Your task to perform on an android device: What is the news today? Image 0: 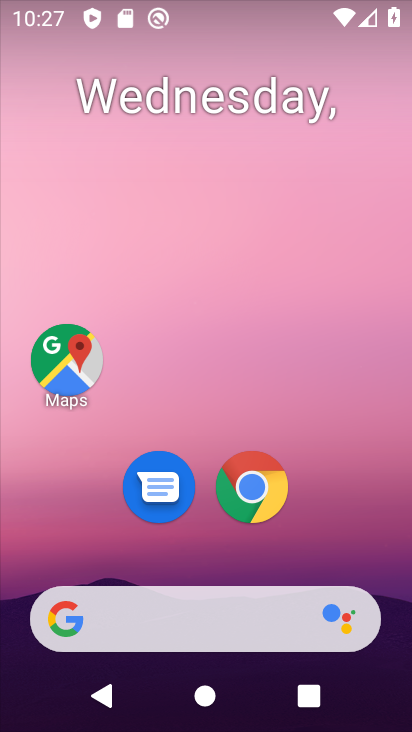
Step 0: drag from (103, 613) to (169, 1)
Your task to perform on an android device: What is the news today? Image 1: 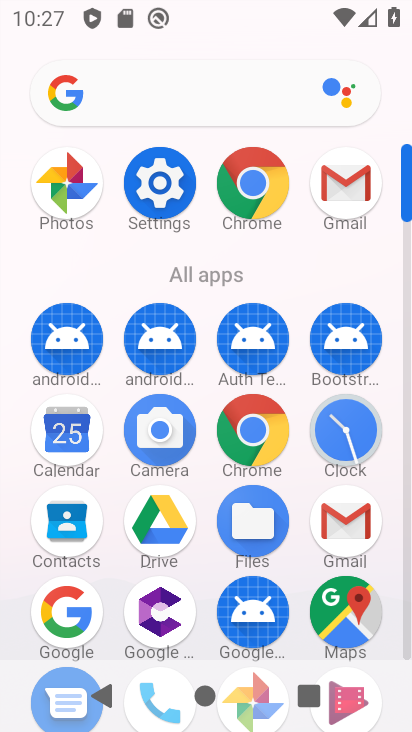
Step 1: click (250, 430)
Your task to perform on an android device: What is the news today? Image 2: 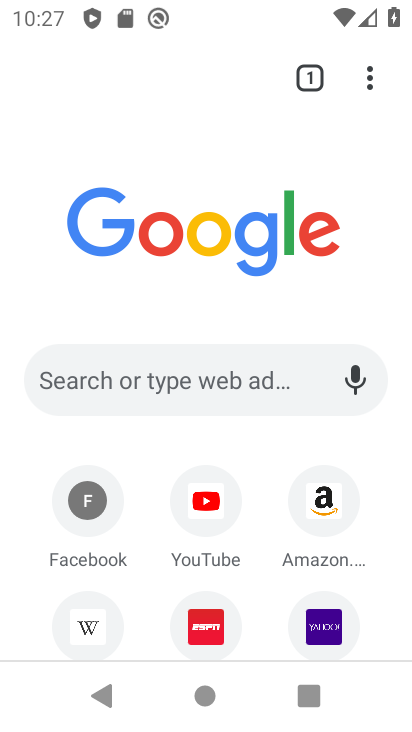
Step 2: click (233, 374)
Your task to perform on an android device: What is the news today? Image 3: 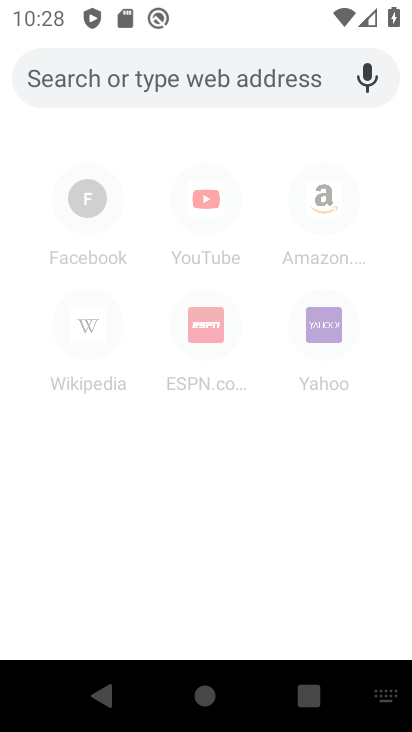
Step 3: type "news today"
Your task to perform on an android device: What is the news today? Image 4: 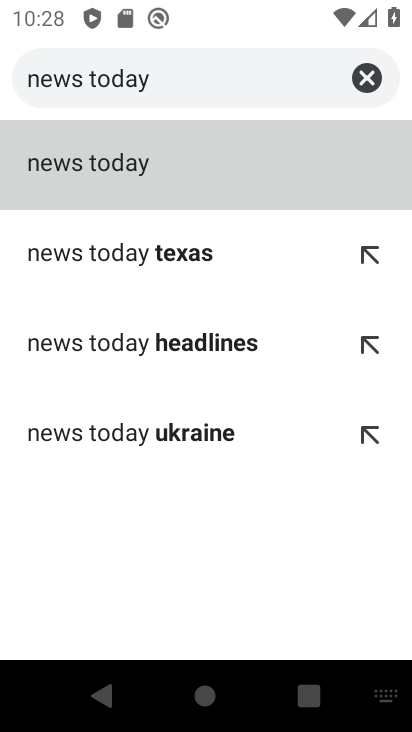
Step 4: click (199, 165)
Your task to perform on an android device: What is the news today? Image 5: 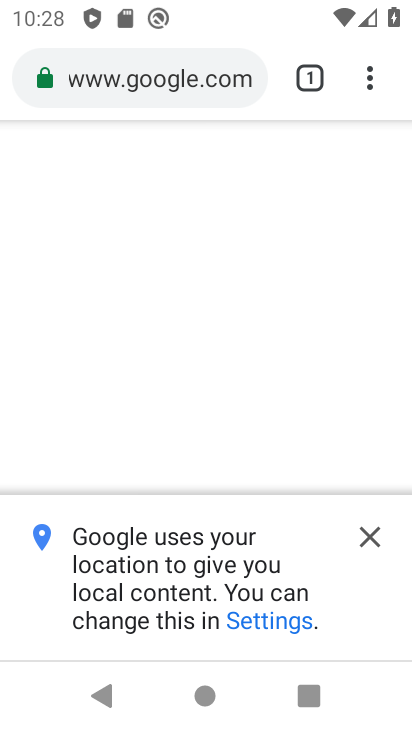
Step 5: task complete